Your task to perform on an android device: open app "ZOOM Cloud Meetings" (install if not already installed) Image 0: 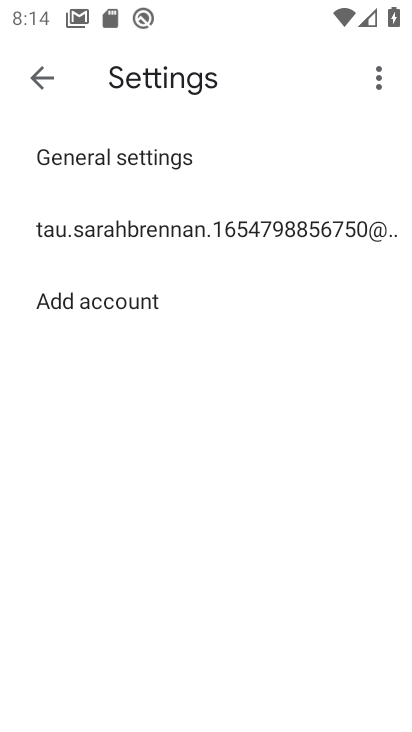
Step 0: press home button
Your task to perform on an android device: open app "ZOOM Cloud Meetings" (install if not already installed) Image 1: 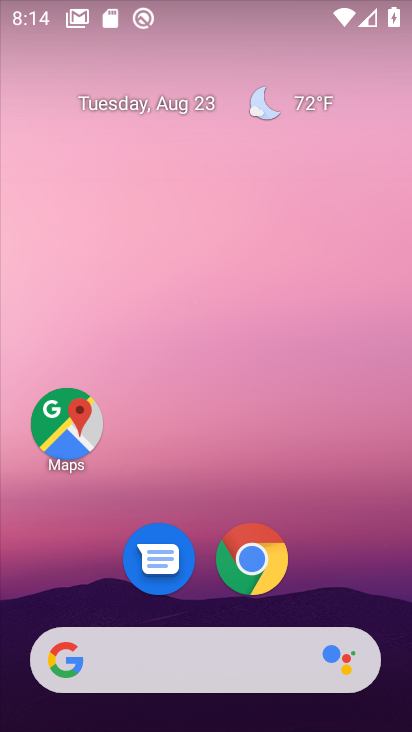
Step 1: drag from (195, 482) to (207, 139)
Your task to perform on an android device: open app "ZOOM Cloud Meetings" (install if not already installed) Image 2: 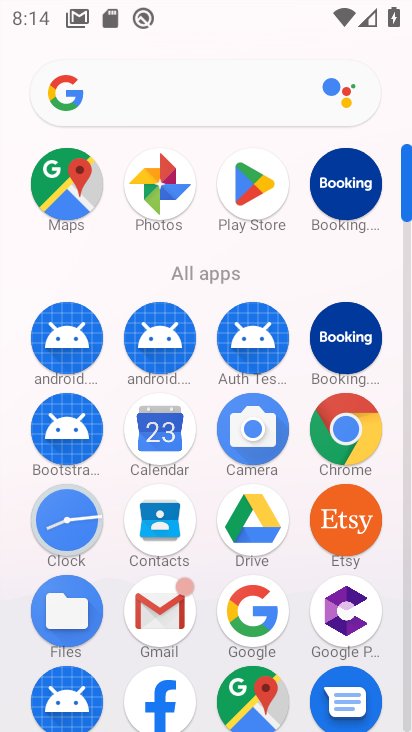
Step 2: click (256, 163)
Your task to perform on an android device: open app "ZOOM Cloud Meetings" (install if not already installed) Image 3: 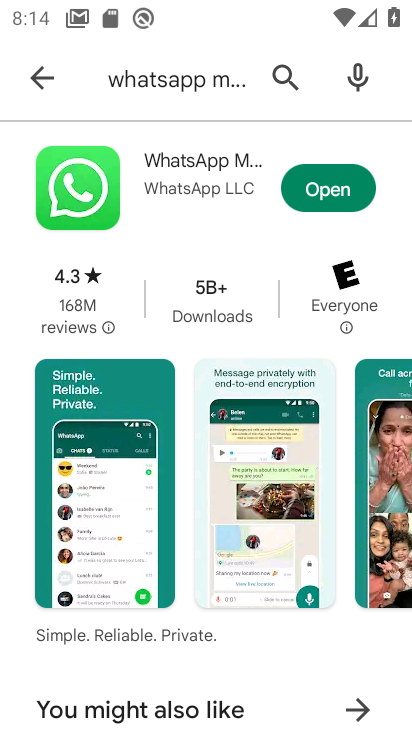
Step 3: click (277, 65)
Your task to perform on an android device: open app "ZOOM Cloud Meetings" (install if not already installed) Image 4: 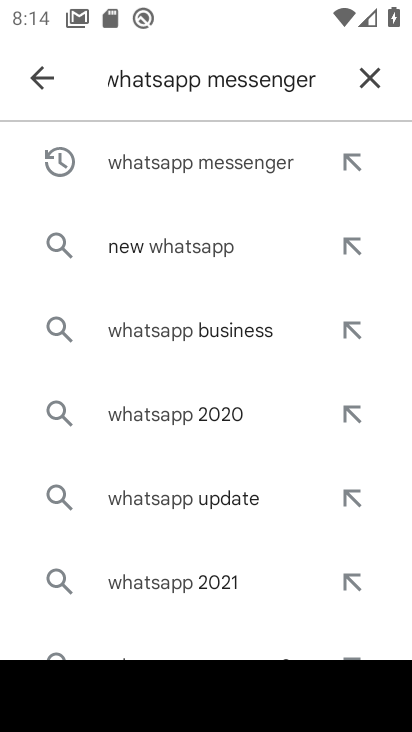
Step 4: click (363, 78)
Your task to perform on an android device: open app "ZOOM Cloud Meetings" (install if not already installed) Image 5: 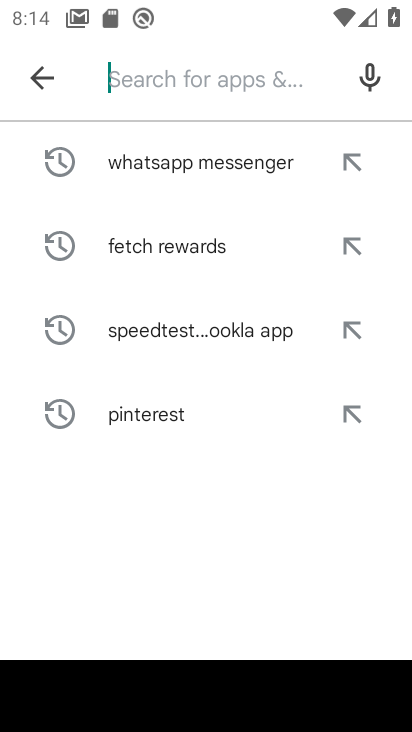
Step 5: type "ZOOM Cloud Meetings"
Your task to perform on an android device: open app "ZOOM Cloud Meetings" (install if not already installed) Image 6: 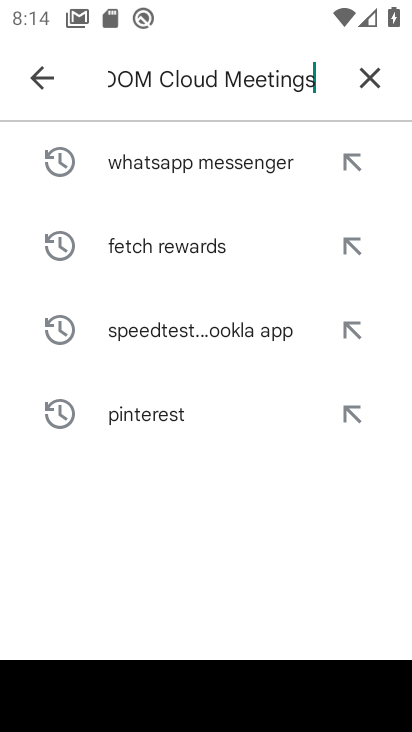
Step 6: type ""
Your task to perform on an android device: open app "ZOOM Cloud Meetings" (install if not already installed) Image 7: 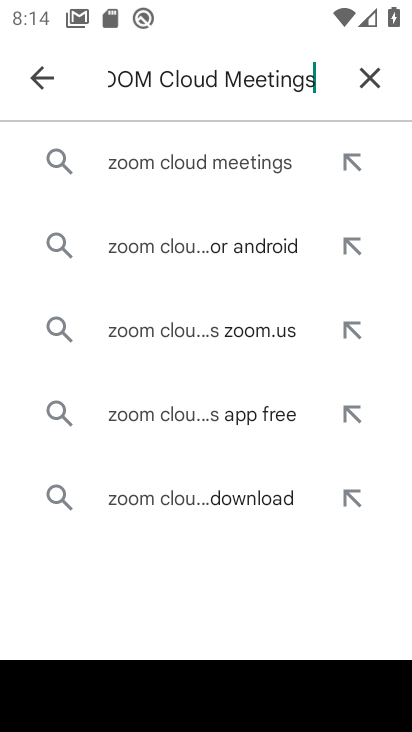
Step 7: click (177, 166)
Your task to perform on an android device: open app "ZOOM Cloud Meetings" (install if not already installed) Image 8: 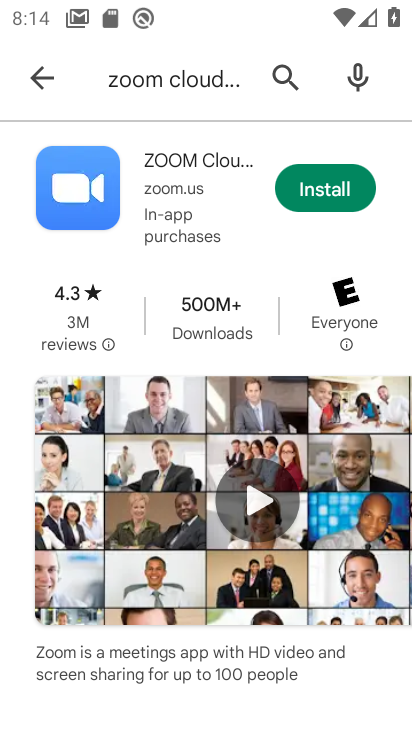
Step 8: click (308, 176)
Your task to perform on an android device: open app "ZOOM Cloud Meetings" (install if not already installed) Image 9: 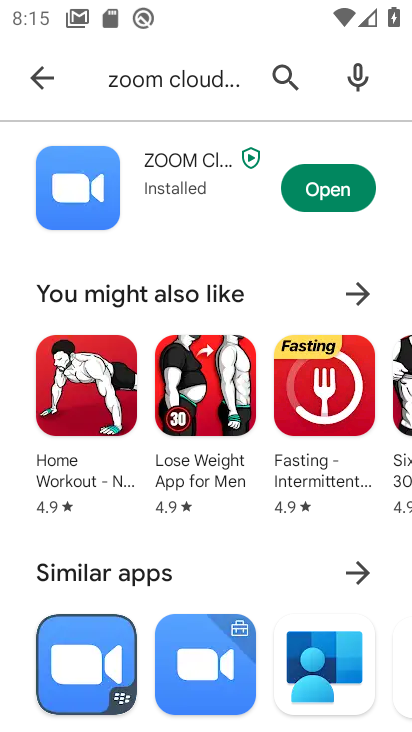
Step 9: click (332, 182)
Your task to perform on an android device: open app "ZOOM Cloud Meetings" (install if not already installed) Image 10: 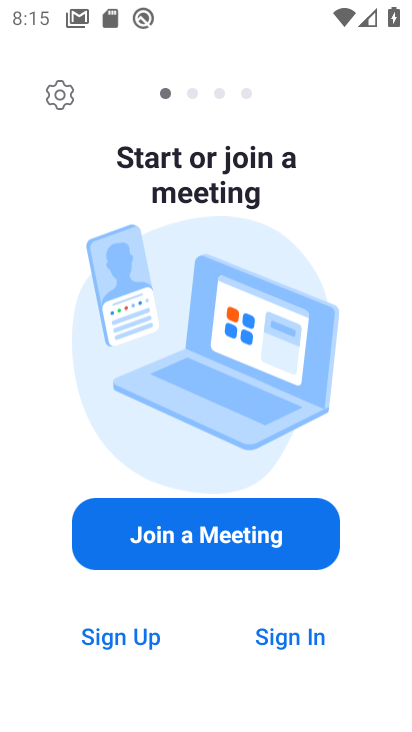
Step 10: task complete